Your task to perform on an android device: Open Android settings Image 0: 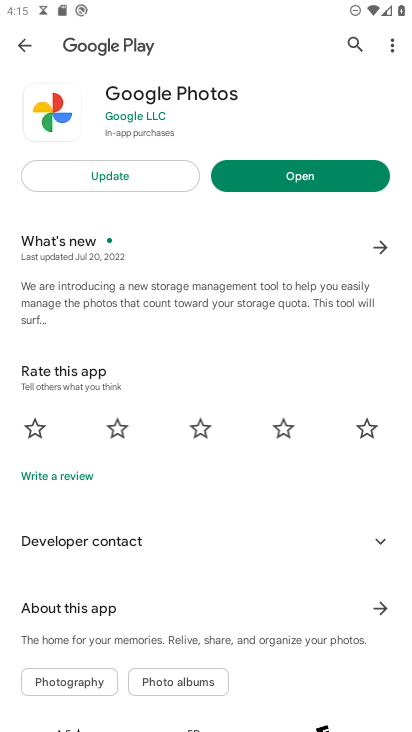
Step 0: press home button
Your task to perform on an android device: Open Android settings Image 1: 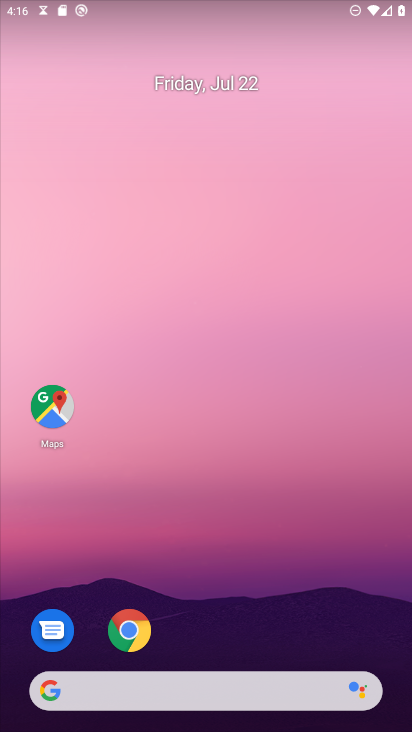
Step 1: drag from (240, 588) to (346, 7)
Your task to perform on an android device: Open Android settings Image 2: 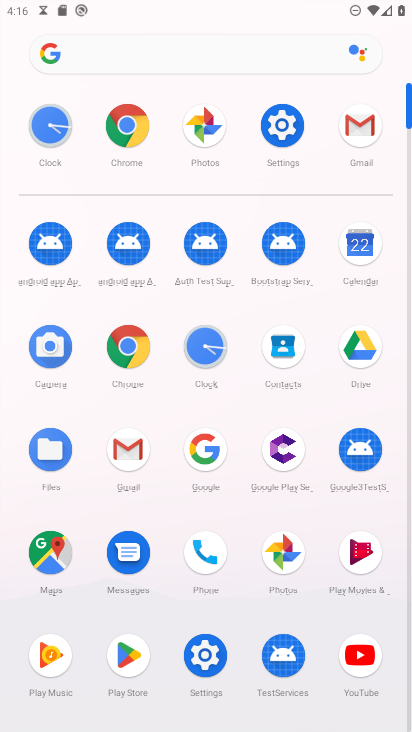
Step 2: click (217, 659)
Your task to perform on an android device: Open Android settings Image 3: 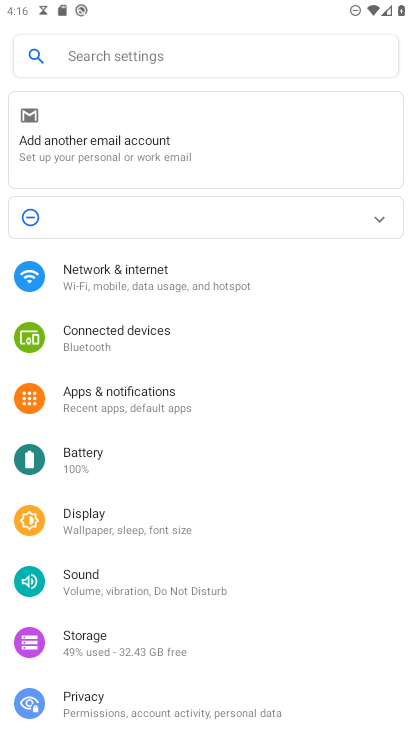
Step 3: drag from (147, 623) to (194, 323)
Your task to perform on an android device: Open Android settings Image 4: 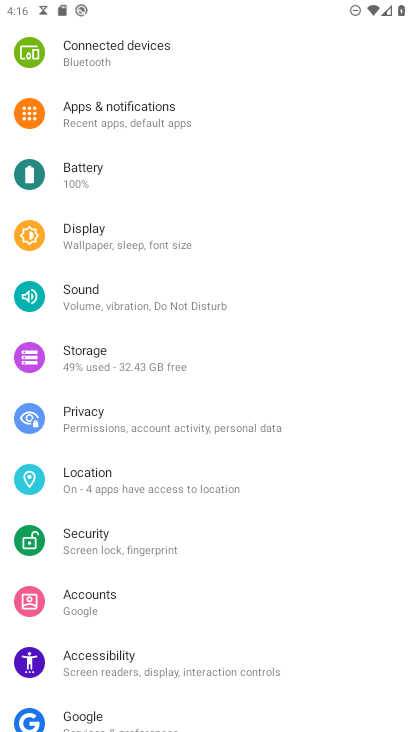
Step 4: drag from (198, 665) to (196, 223)
Your task to perform on an android device: Open Android settings Image 5: 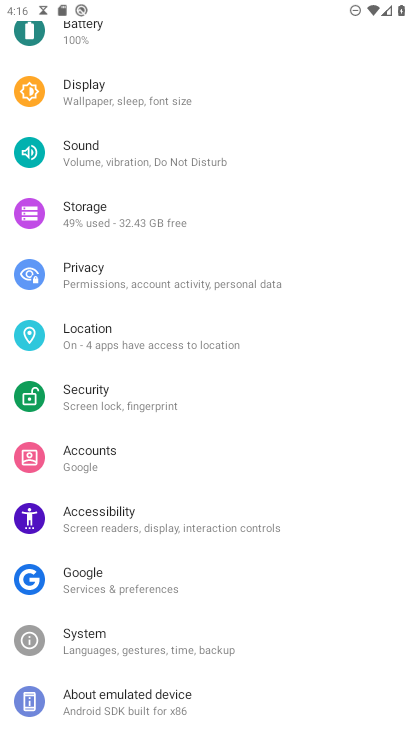
Step 5: click (114, 706)
Your task to perform on an android device: Open Android settings Image 6: 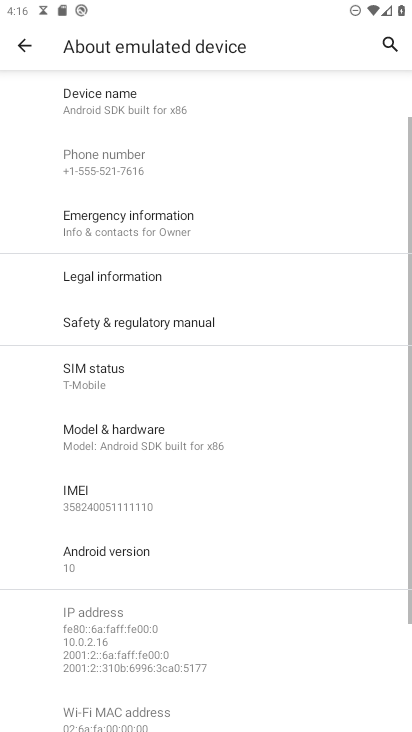
Step 6: click (110, 557)
Your task to perform on an android device: Open Android settings Image 7: 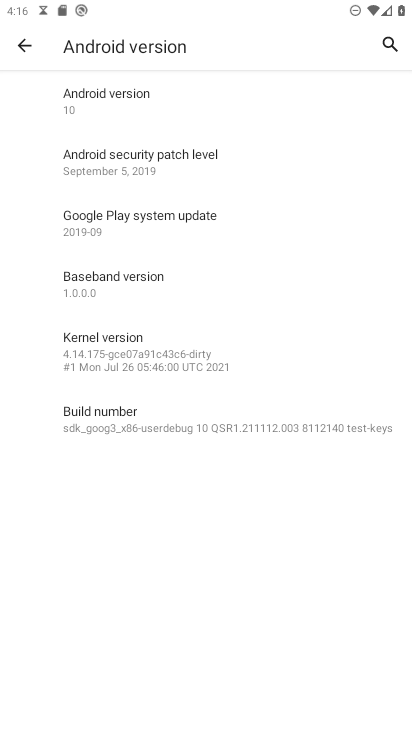
Step 7: task complete